Your task to perform on an android device: Go to location settings Image 0: 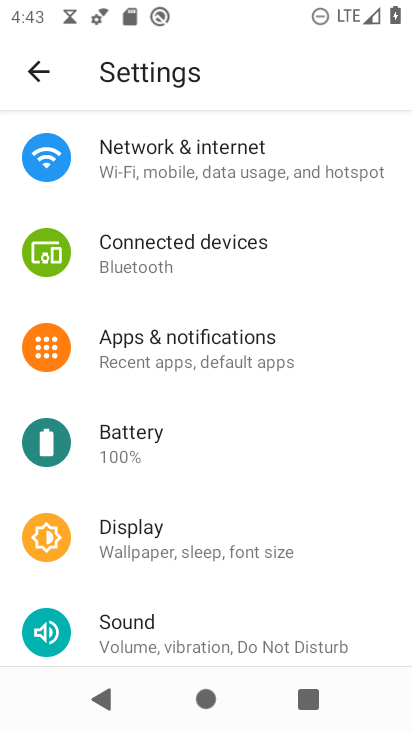
Step 0: drag from (221, 596) to (209, 504)
Your task to perform on an android device: Go to location settings Image 1: 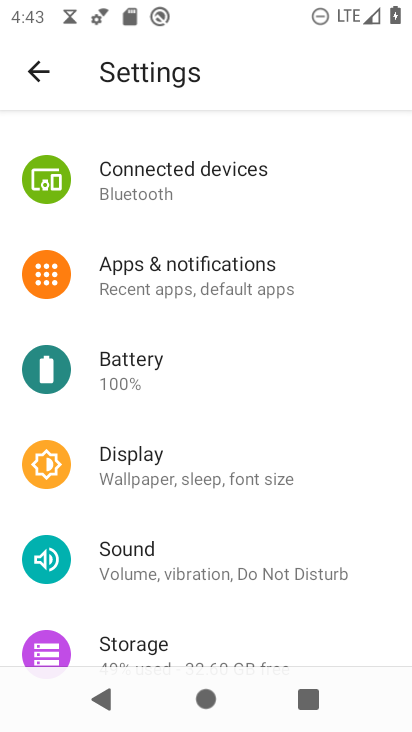
Step 1: drag from (232, 571) to (236, 489)
Your task to perform on an android device: Go to location settings Image 2: 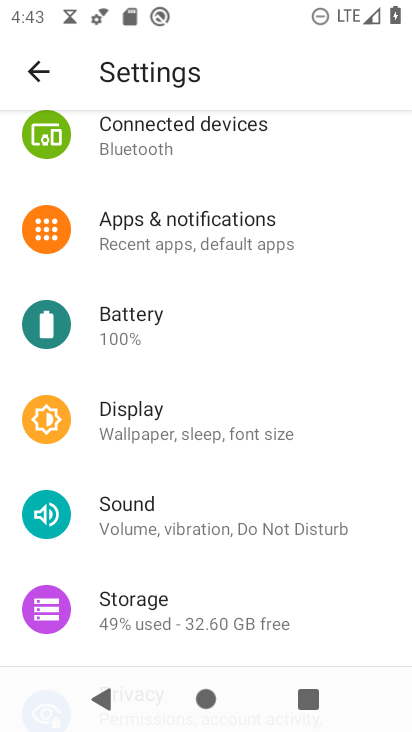
Step 2: drag from (244, 566) to (239, 476)
Your task to perform on an android device: Go to location settings Image 3: 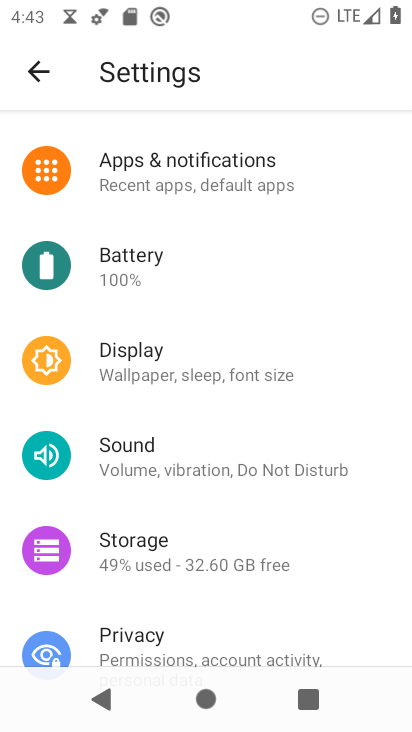
Step 3: drag from (258, 581) to (248, 493)
Your task to perform on an android device: Go to location settings Image 4: 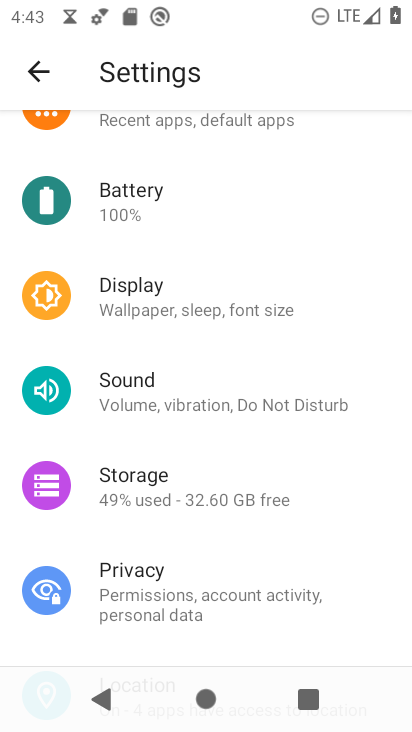
Step 4: drag from (266, 611) to (248, 523)
Your task to perform on an android device: Go to location settings Image 5: 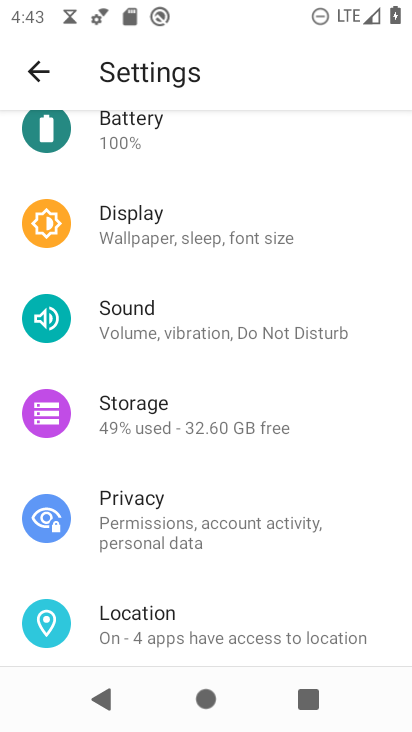
Step 5: click (275, 621)
Your task to perform on an android device: Go to location settings Image 6: 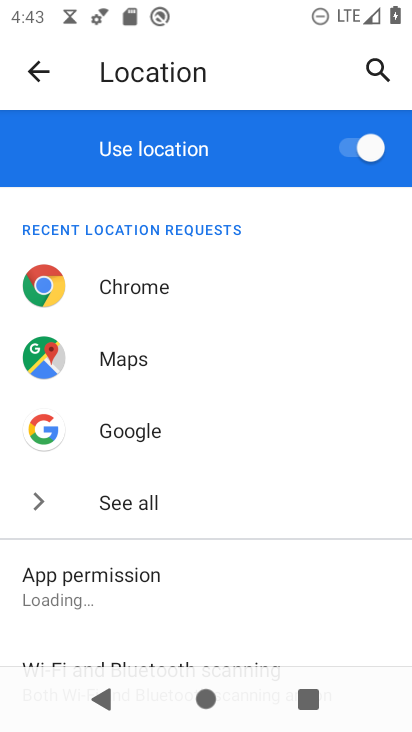
Step 6: task complete